Your task to perform on an android device: turn on the 24-hour format for clock Image 0: 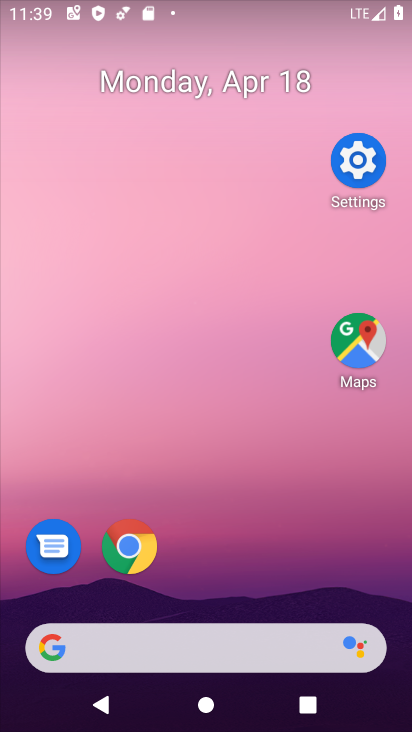
Step 0: drag from (202, 435) to (159, 59)
Your task to perform on an android device: turn on the 24-hour format for clock Image 1: 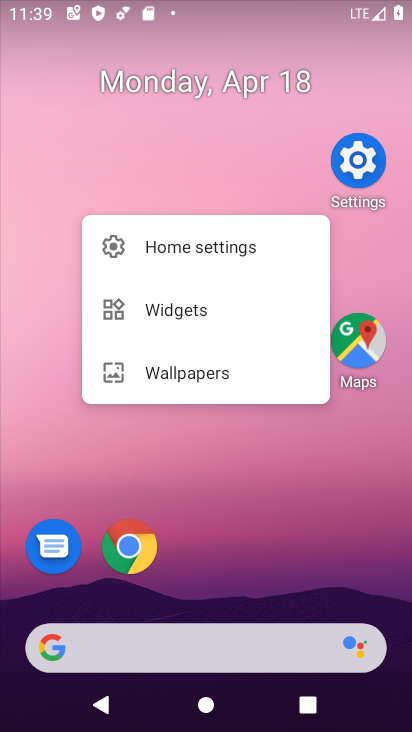
Step 1: drag from (298, 576) to (215, 18)
Your task to perform on an android device: turn on the 24-hour format for clock Image 2: 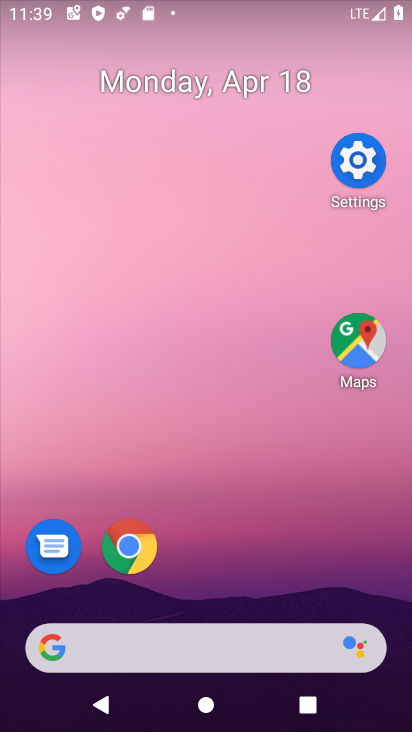
Step 2: drag from (207, 529) to (161, 223)
Your task to perform on an android device: turn on the 24-hour format for clock Image 3: 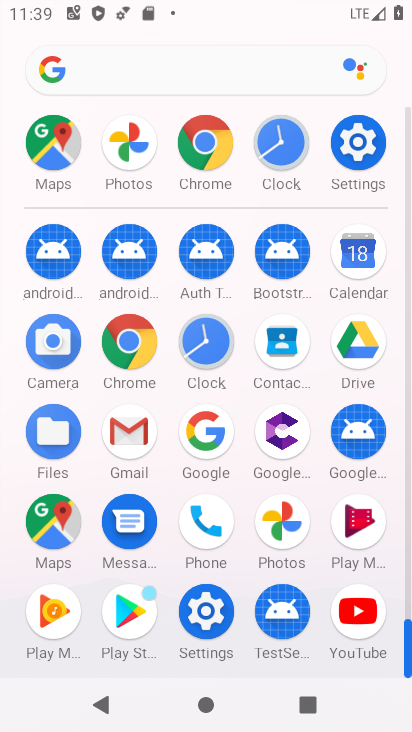
Step 3: click (214, 340)
Your task to perform on an android device: turn on the 24-hour format for clock Image 4: 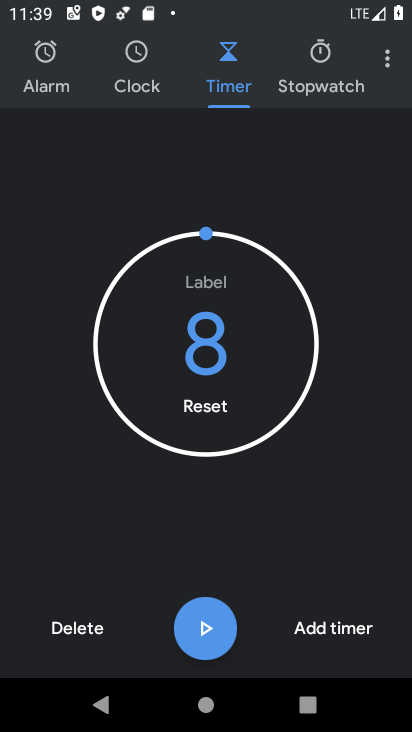
Step 4: click (384, 60)
Your task to perform on an android device: turn on the 24-hour format for clock Image 5: 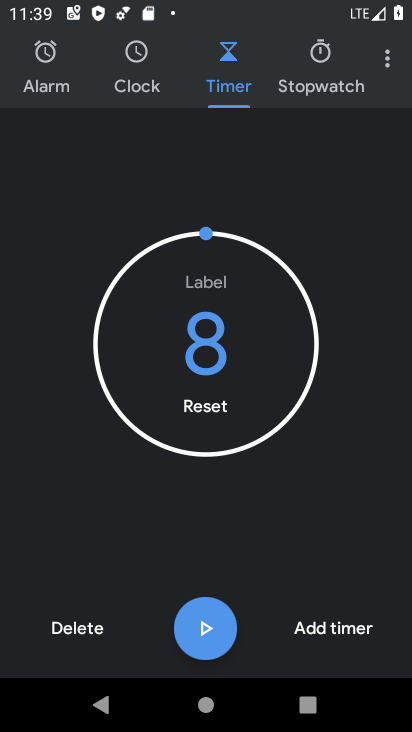
Step 5: click (385, 57)
Your task to perform on an android device: turn on the 24-hour format for clock Image 6: 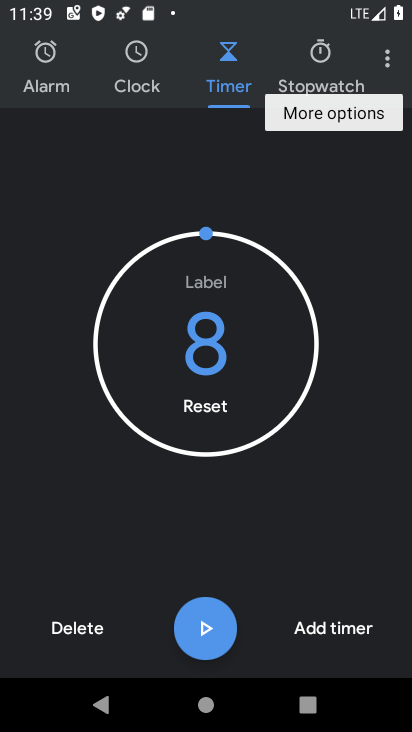
Step 6: click (385, 57)
Your task to perform on an android device: turn on the 24-hour format for clock Image 7: 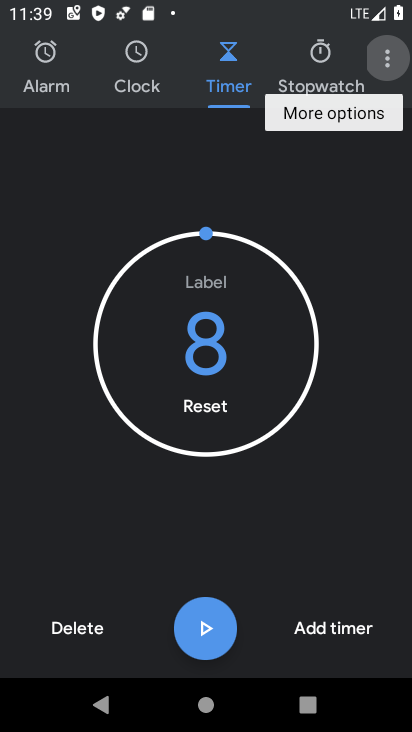
Step 7: click (385, 58)
Your task to perform on an android device: turn on the 24-hour format for clock Image 8: 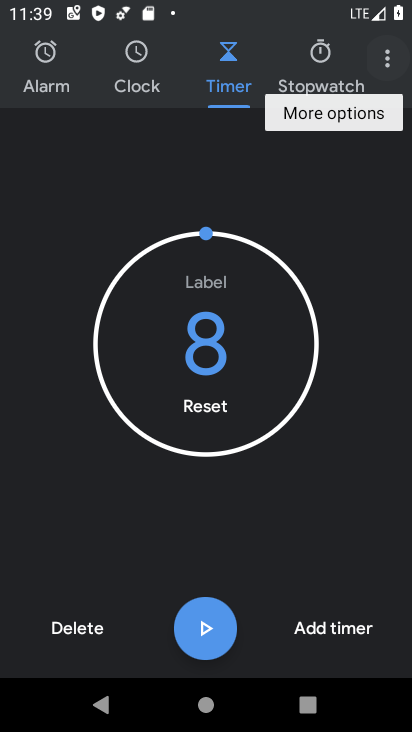
Step 8: click (382, 63)
Your task to perform on an android device: turn on the 24-hour format for clock Image 9: 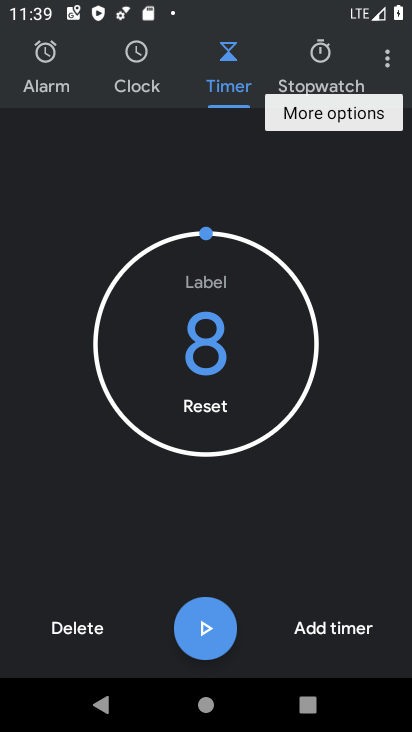
Step 9: click (353, 115)
Your task to perform on an android device: turn on the 24-hour format for clock Image 10: 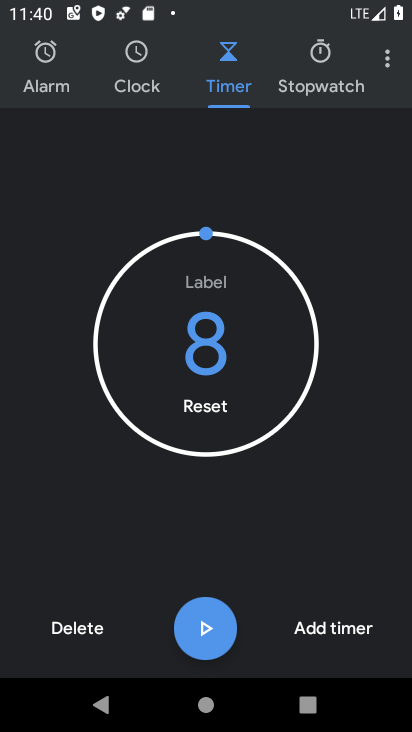
Step 10: click (379, 52)
Your task to perform on an android device: turn on the 24-hour format for clock Image 11: 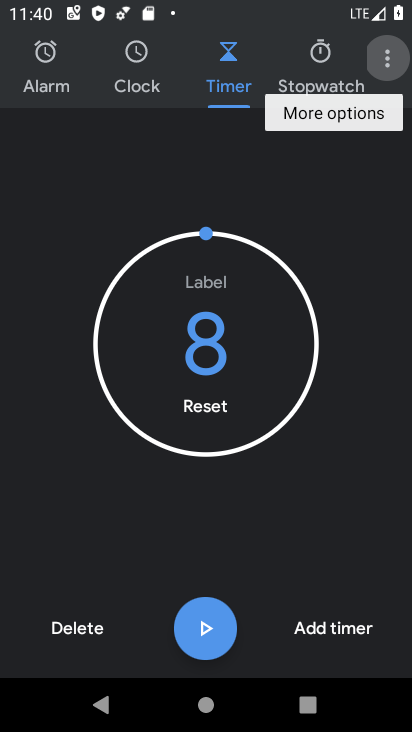
Step 11: click (381, 66)
Your task to perform on an android device: turn on the 24-hour format for clock Image 12: 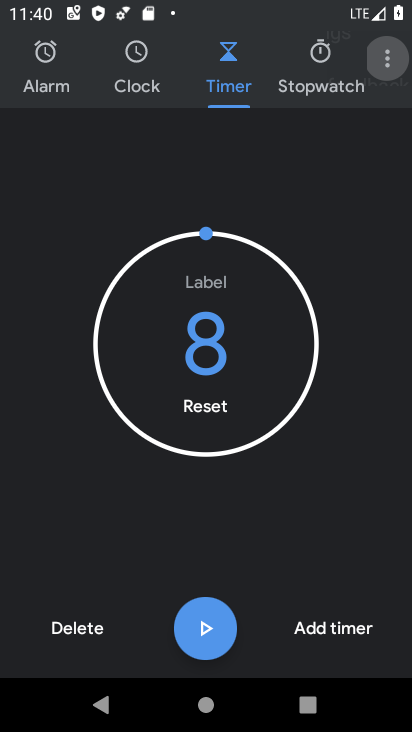
Step 12: click (380, 68)
Your task to perform on an android device: turn on the 24-hour format for clock Image 13: 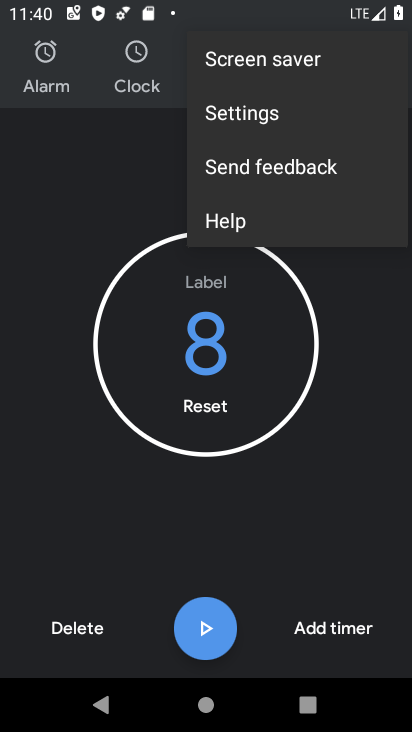
Step 13: click (224, 108)
Your task to perform on an android device: turn on the 24-hour format for clock Image 14: 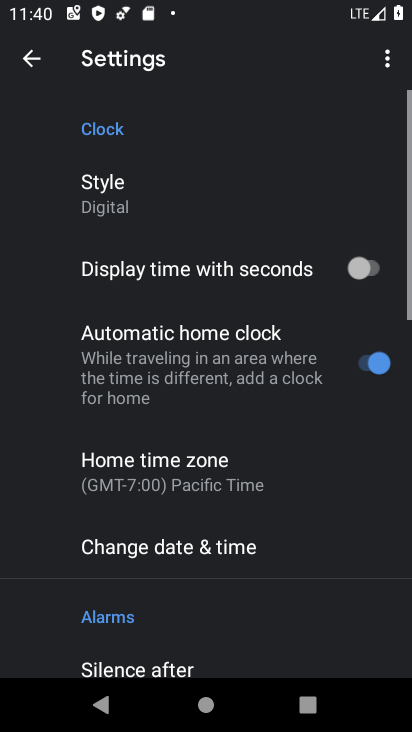
Step 14: click (233, 111)
Your task to perform on an android device: turn on the 24-hour format for clock Image 15: 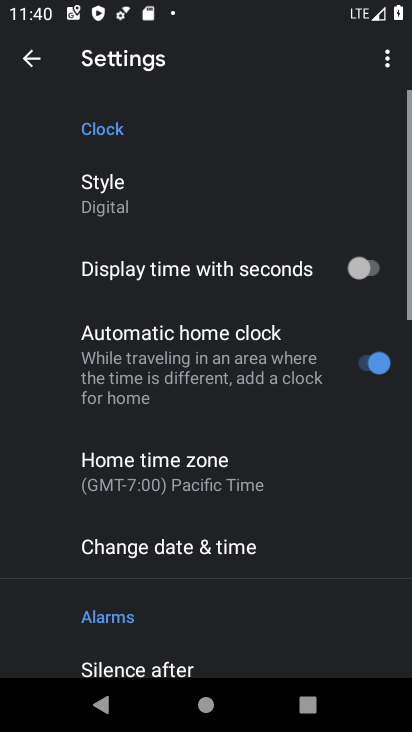
Step 15: click (233, 111)
Your task to perform on an android device: turn on the 24-hour format for clock Image 16: 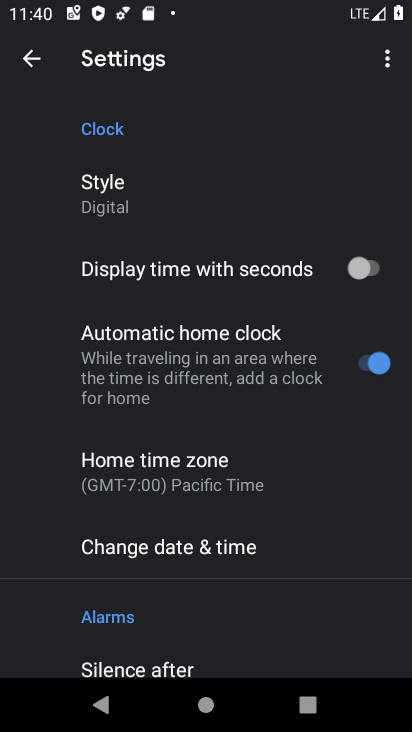
Step 16: drag from (261, 563) to (221, 282)
Your task to perform on an android device: turn on the 24-hour format for clock Image 17: 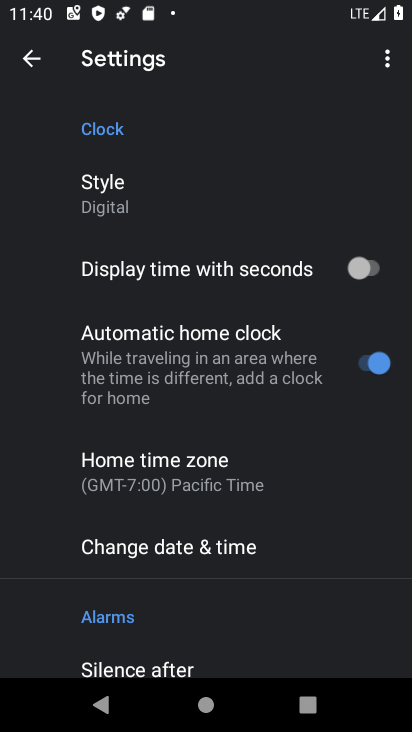
Step 17: drag from (220, 481) to (170, 247)
Your task to perform on an android device: turn on the 24-hour format for clock Image 18: 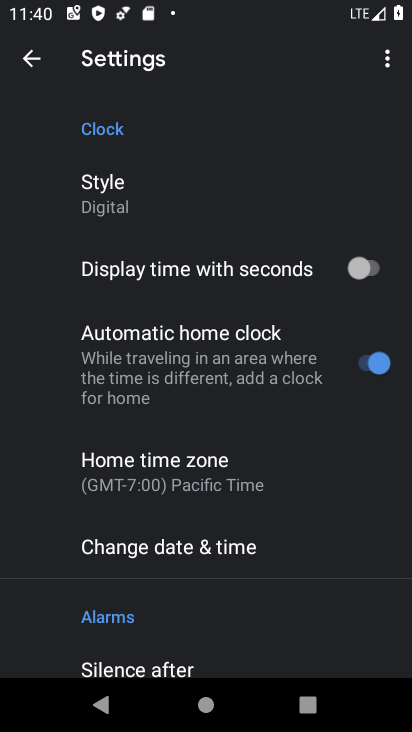
Step 18: click (183, 543)
Your task to perform on an android device: turn on the 24-hour format for clock Image 19: 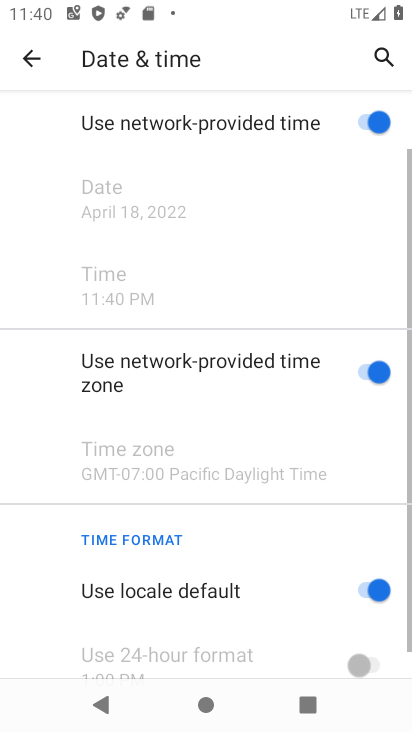
Step 19: drag from (227, 505) to (219, 225)
Your task to perform on an android device: turn on the 24-hour format for clock Image 20: 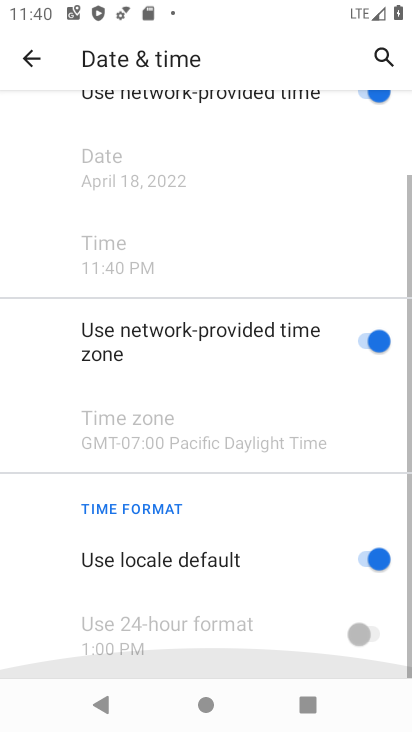
Step 20: drag from (193, 414) to (191, 230)
Your task to perform on an android device: turn on the 24-hour format for clock Image 21: 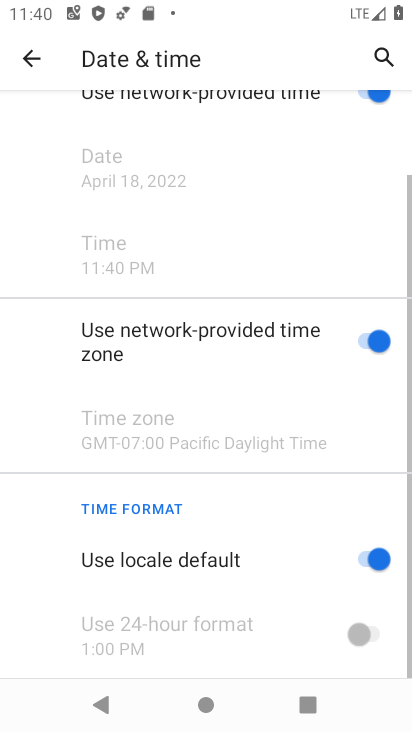
Step 21: drag from (240, 518) to (169, 230)
Your task to perform on an android device: turn on the 24-hour format for clock Image 22: 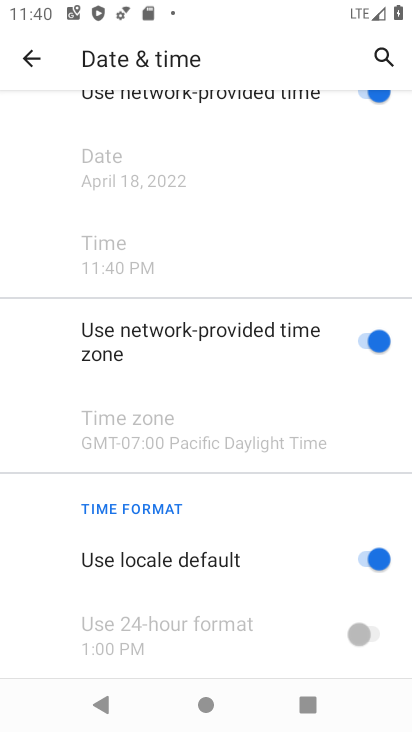
Step 22: click (379, 561)
Your task to perform on an android device: turn on the 24-hour format for clock Image 23: 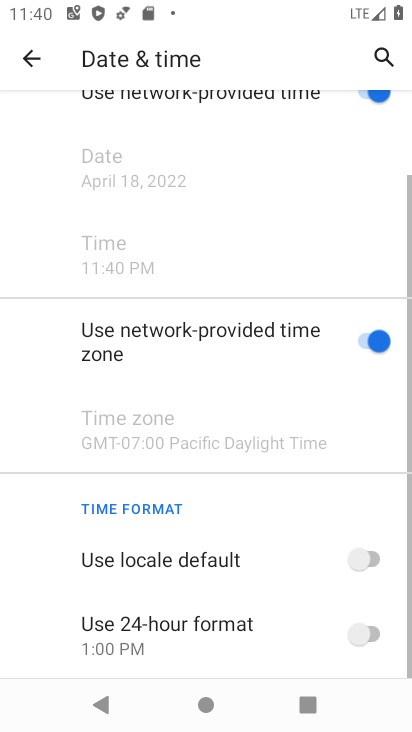
Step 23: click (365, 631)
Your task to perform on an android device: turn on the 24-hour format for clock Image 24: 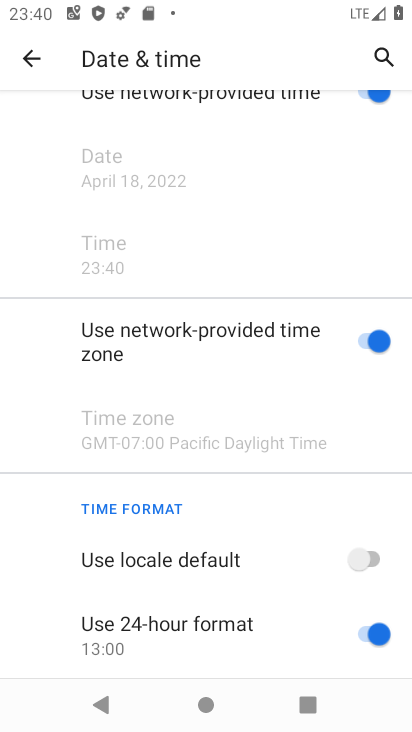
Step 24: task complete